Your task to perform on an android device: turn on location history Image 0: 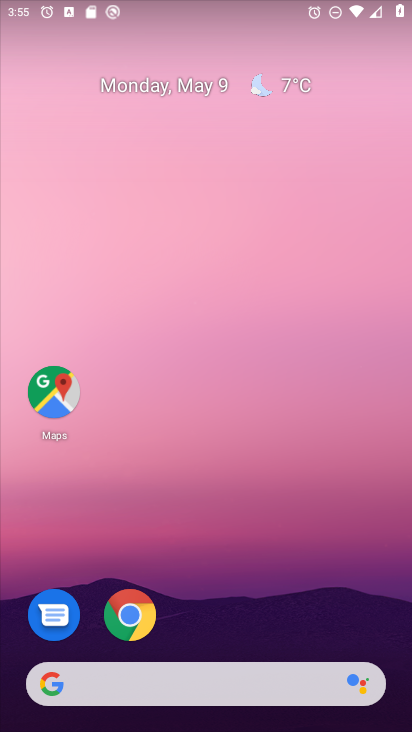
Step 0: click (55, 391)
Your task to perform on an android device: turn on location history Image 1: 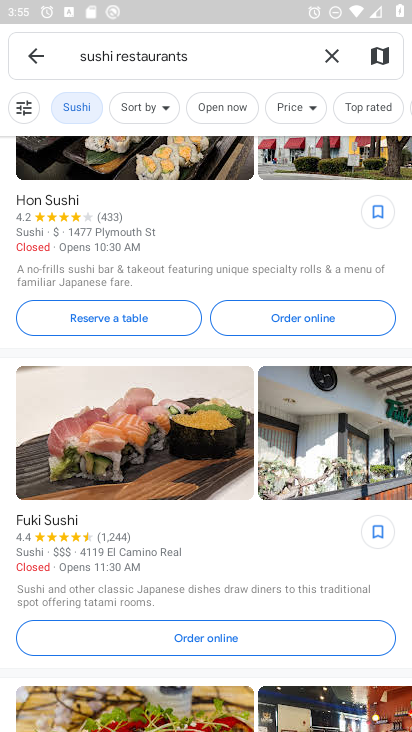
Step 1: click (331, 51)
Your task to perform on an android device: turn on location history Image 2: 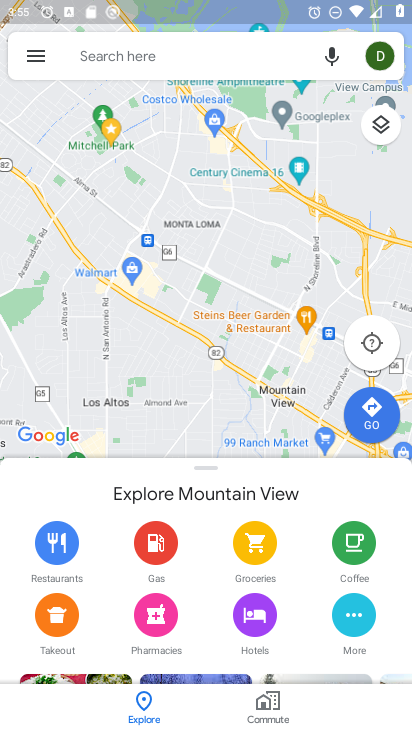
Step 2: click (33, 52)
Your task to perform on an android device: turn on location history Image 3: 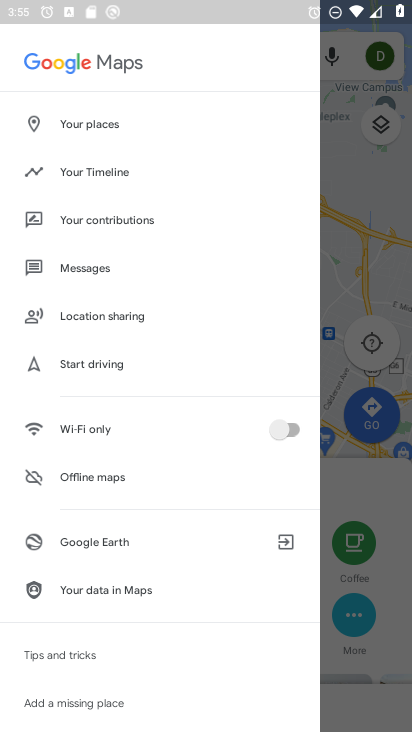
Step 3: drag from (192, 602) to (225, 290)
Your task to perform on an android device: turn on location history Image 4: 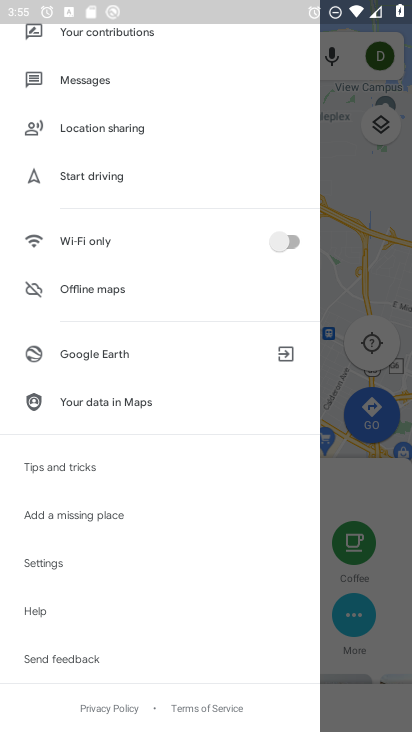
Step 4: click (39, 561)
Your task to perform on an android device: turn on location history Image 5: 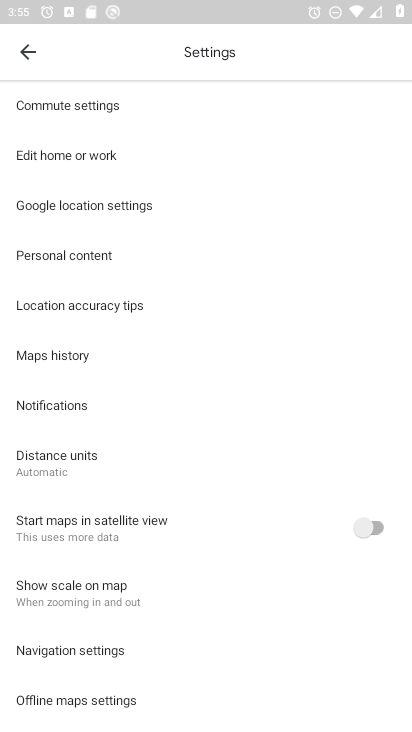
Step 5: click (60, 256)
Your task to perform on an android device: turn on location history Image 6: 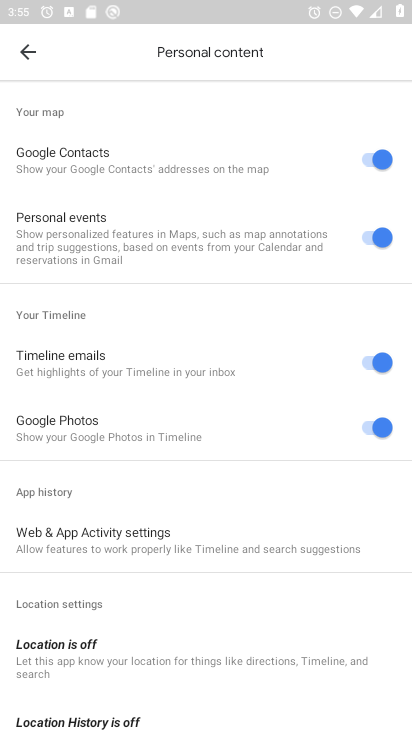
Step 6: drag from (206, 655) to (238, 297)
Your task to perform on an android device: turn on location history Image 7: 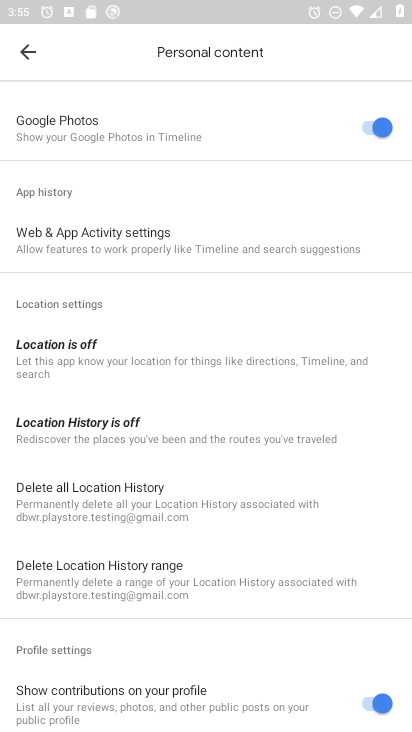
Step 7: click (59, 492)
Your task to perform on an android device: turn on location history Image 8: 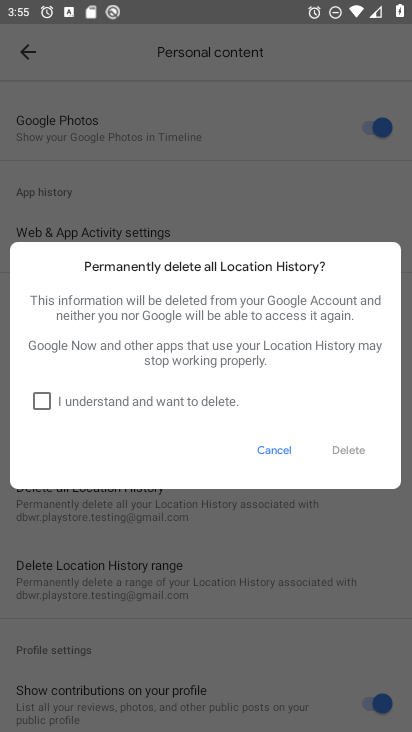
Step 8: click (277, 447)
Your task to perform on an android device: turn on location history Image 9: 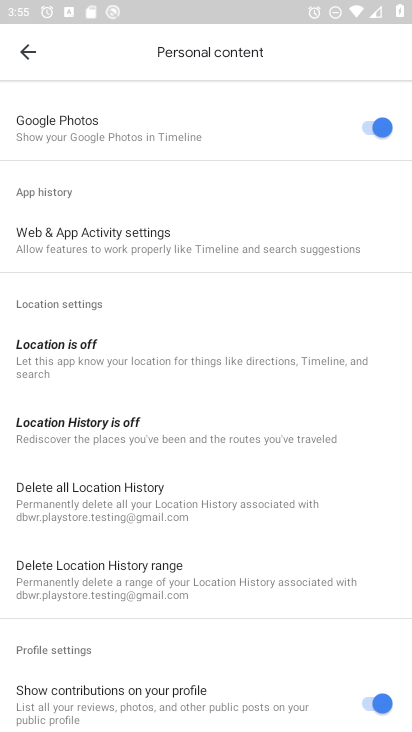
Step 9: click (87, 422)
Your task to perform on an android device: turn on location history Image 10: 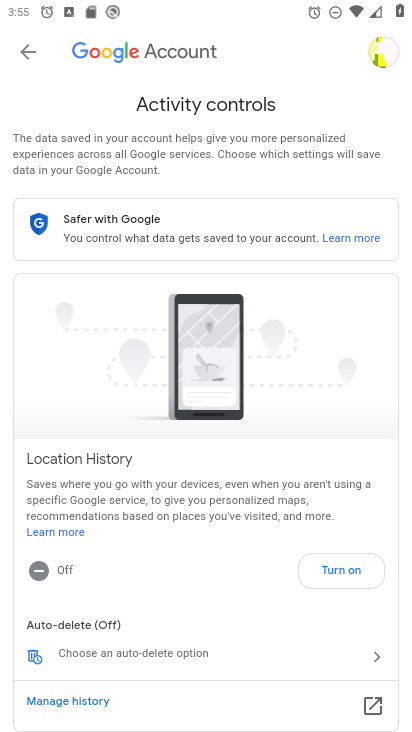
Step 10: drag from (210, 622) to (254, 312)
Your task to perform on an android device: turn on location history Image 11: 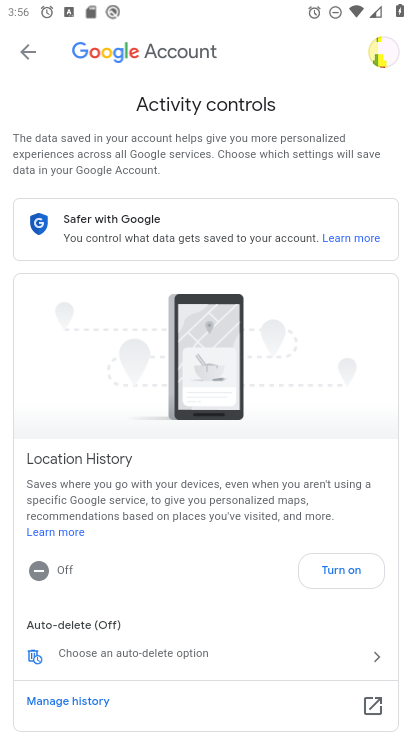
Step 11: click (345, 564)
Your task to perform on an android device: turn on location history Image 12: 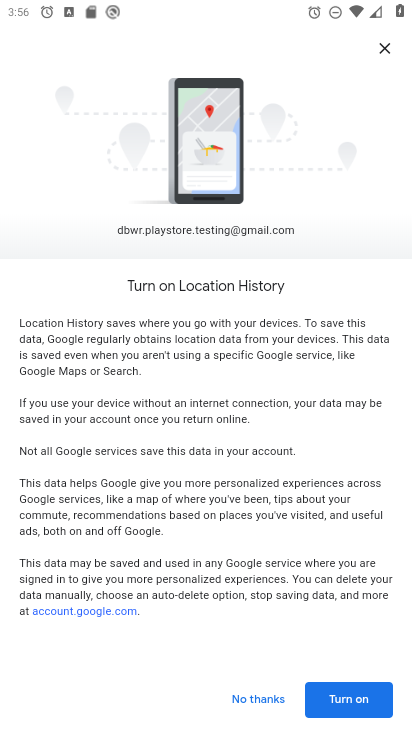
Step 12: click (344, 698)
Your task to perform on an android device: turn on location history Image 13: 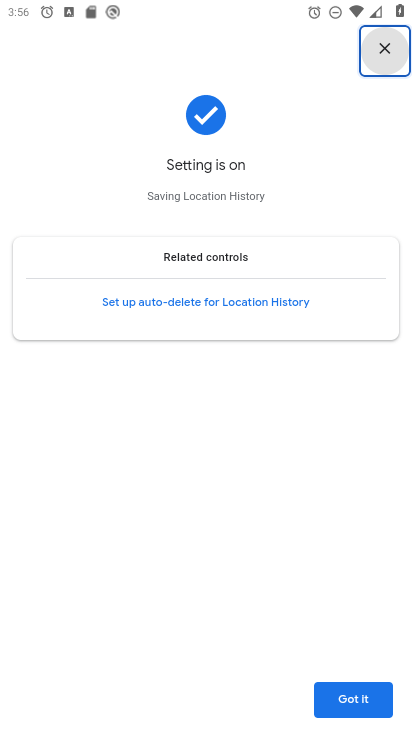
Step 13: click (348, 702)
Your task to perform on an android device: turn on location history Image 14: 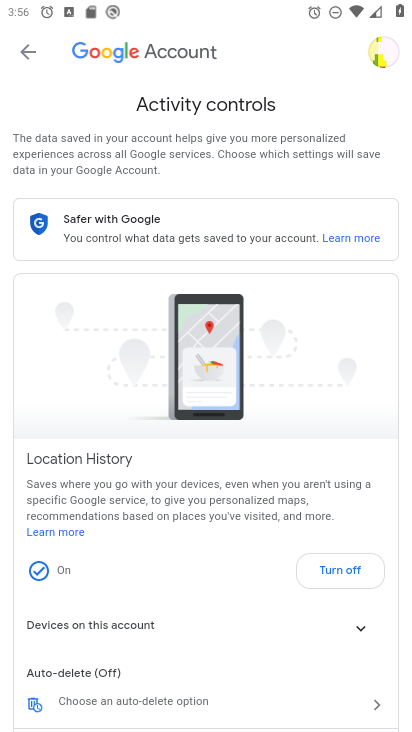
Step 14: task complete